Your task to perform on an android device: set an alarm Image 0: 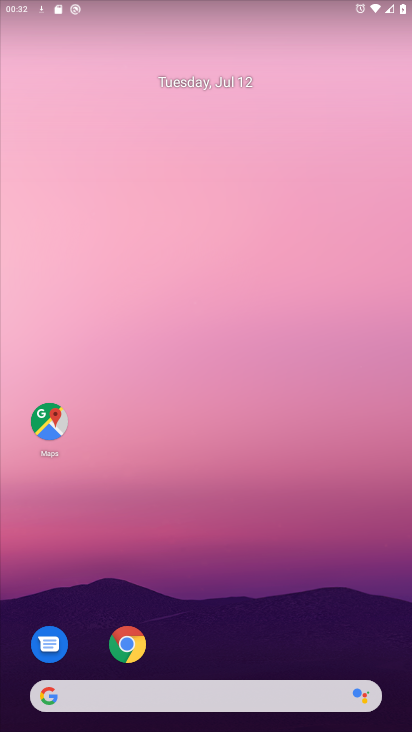
Step 0: drag from (175, 664) to (171, 219)
Your task to perform on an android device: set an alarm Image 1: 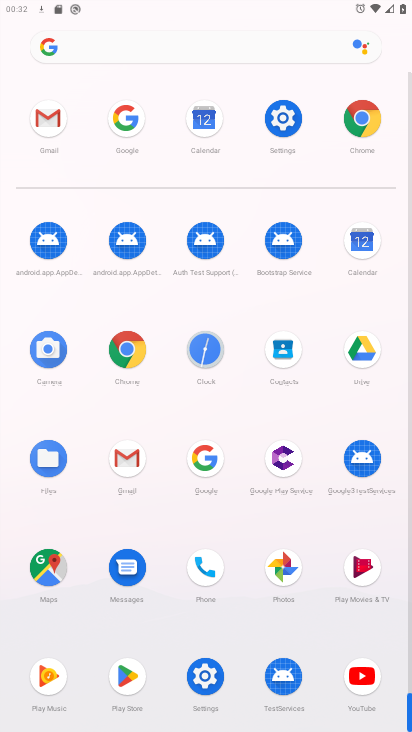
Step 1: click (220, 348)
Your task to perform on an android device: set an alarm Image 2: 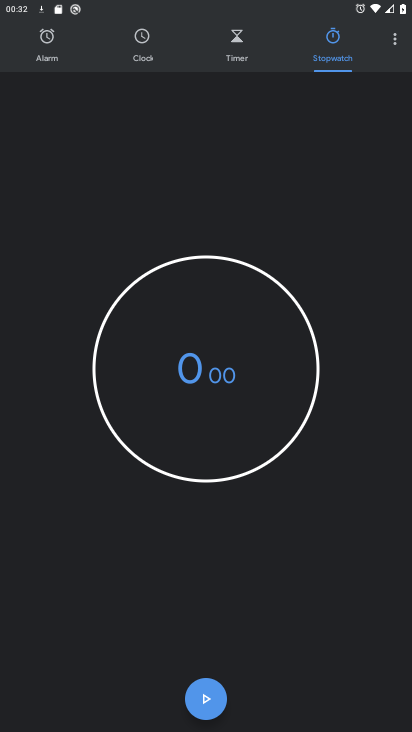
Step 2: click (44, 41)
Your task to perform on an android device: set an alarm Image 3: 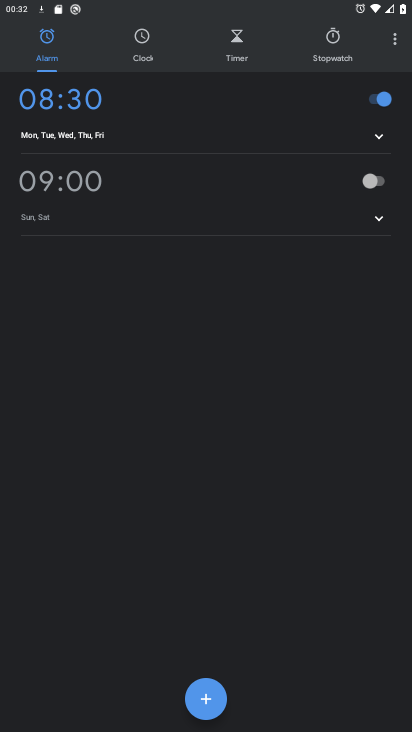
Step 3: click (378, 175)
Your task to perform on an android device: set an alarm Image 4: 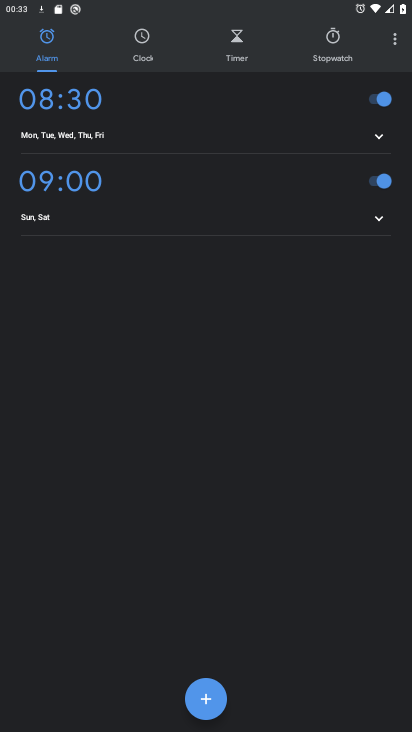
Step 4: task complete